Your task to perform on an android device: turn off sleep mode Image 0: 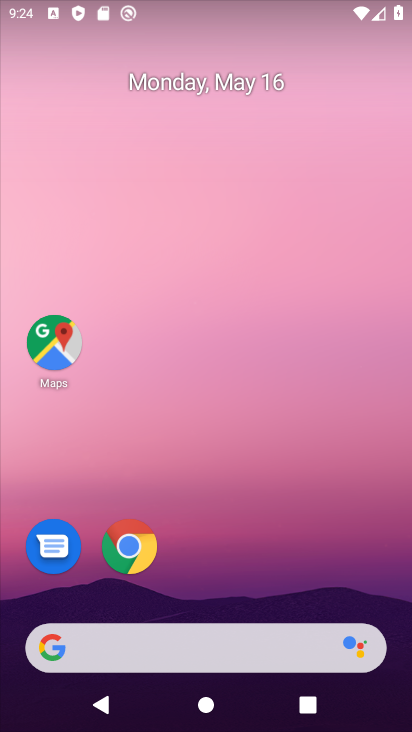
Step 0: drag from (212, 602) to (333, 6)
Your task to perform on an android device: turn off sleep mode Image 1: 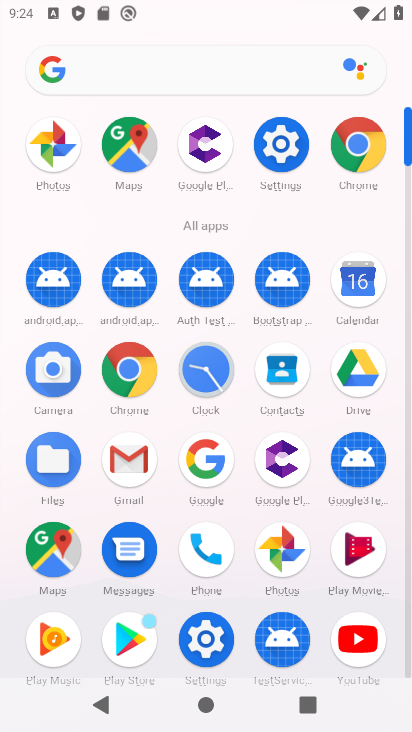
Step 1: click (271, 160)
Your task to perform on an android device: turn off sleep mode Image 2: 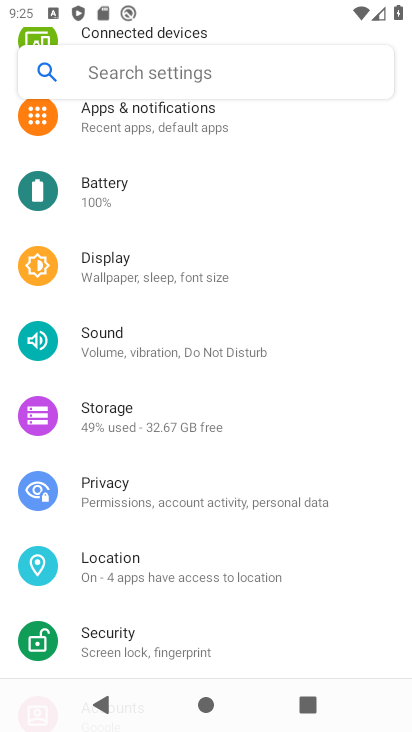
Step 2: task complete